Your task to perform on an android device: Go to Reddit.com Image 0: 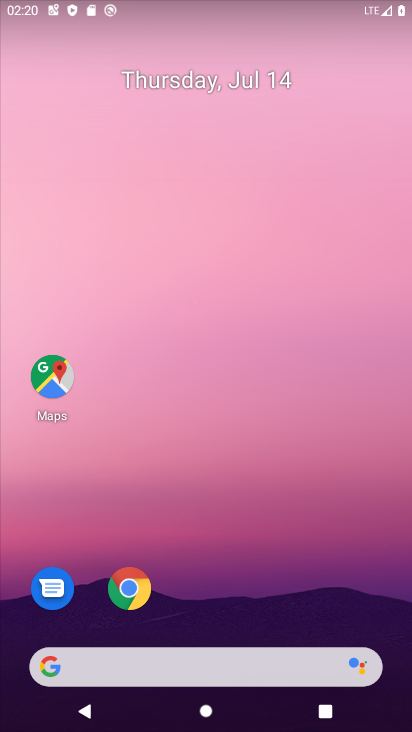
Step 0: click (247, 664)
Your task to perform on an android device: Go to Reddit.com Image 1: 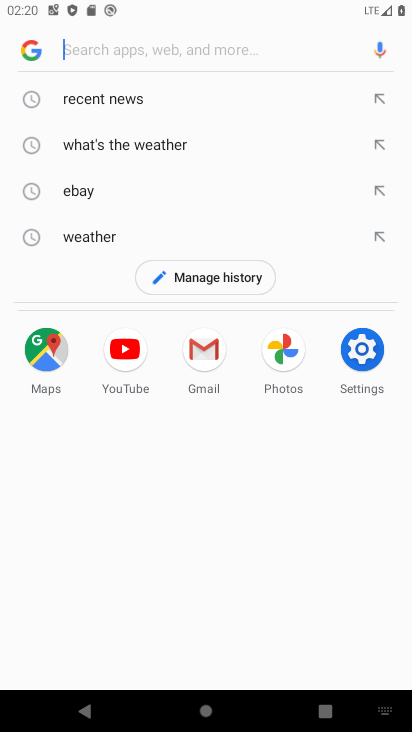
Step 1: type "reddit.com"
Your task to perform on an android device: Go to Reddit.com Image 2: 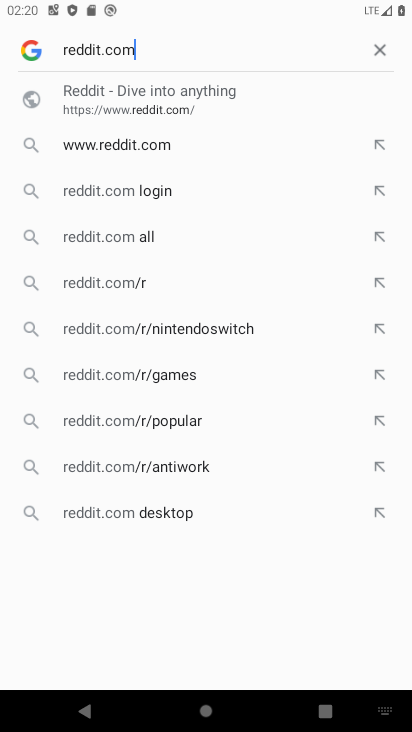
Step 2: click (188, 109)
Your task to perform on an android device: Go to Reddit.com Image 3: 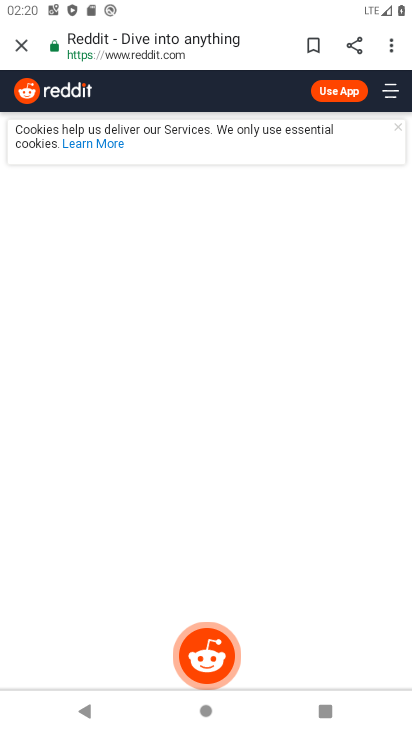
Step 3: task complete